Your task to perform on an android device: Search for Mexican restaurants on Maps Image 0: 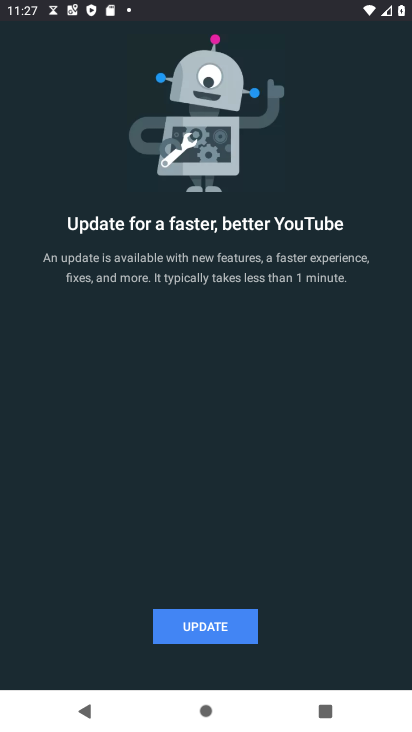
Step 0: press home button
Your task to perform on an android device: Search for Mexican restaurants on Maps Image 1: 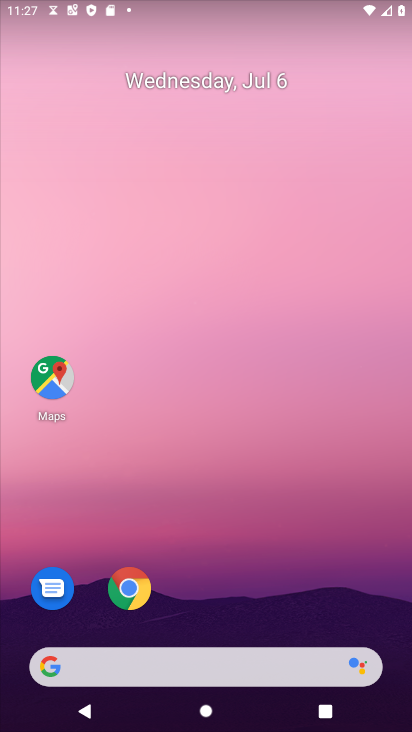
Step 1: drag from (297, 599) to (260, 99)
Your task to perform on an android device: Search for Mexican restaurants on Maps Image 2: 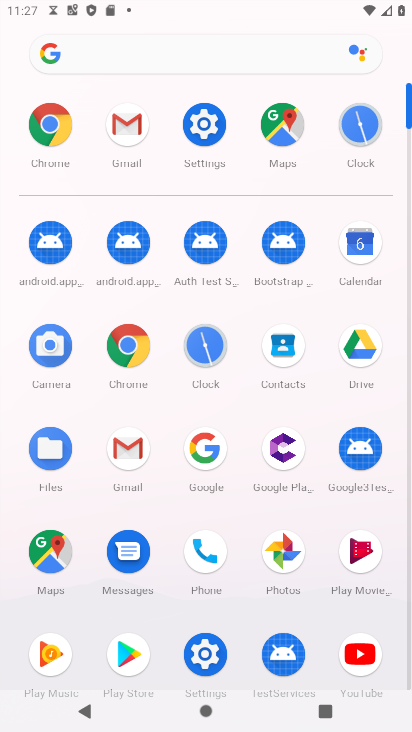
Step 2: click (48, 541)
Your task to perform on an android device: Search for Mexican restaurants on Maps Image 3: 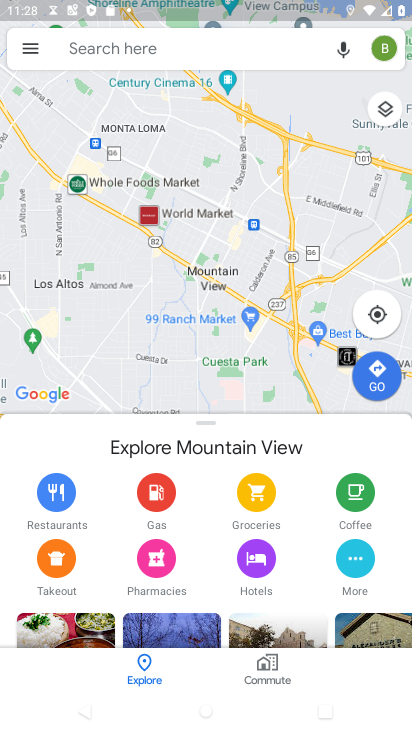
Step 3: click (150, 28)
Your task to perform on an android device: Search for Mexican restaurants on Maps Image 4: 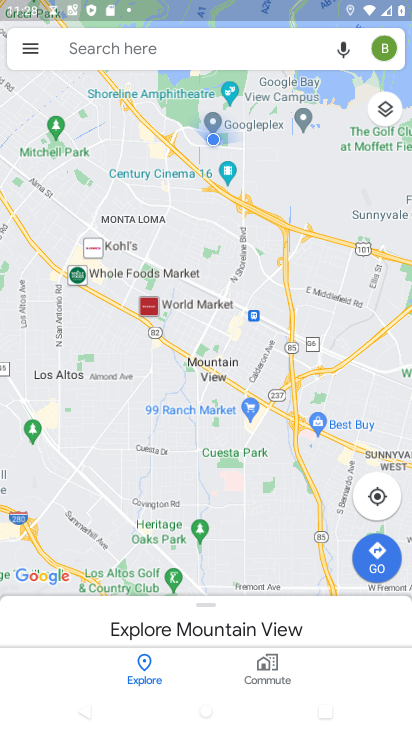
Step 4: type " Mexican restaurants "
Your task to perform on an android device: Search for Mexican restaurants on Maps Image 5: 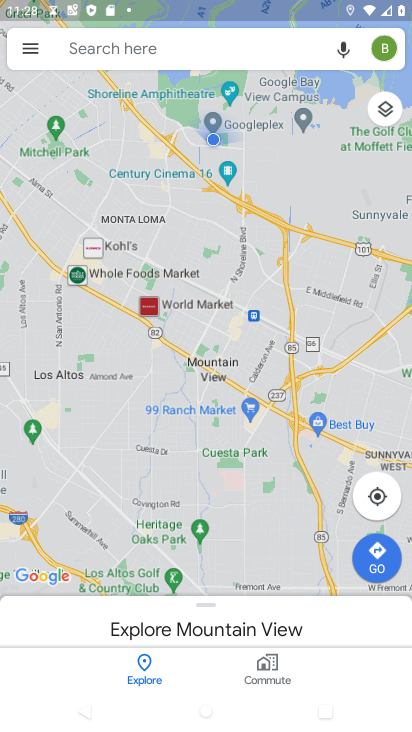
Step 5: click (187, 44)
Your task to perform on an android device: Search for Mexican restaurants on Maps Image 6: 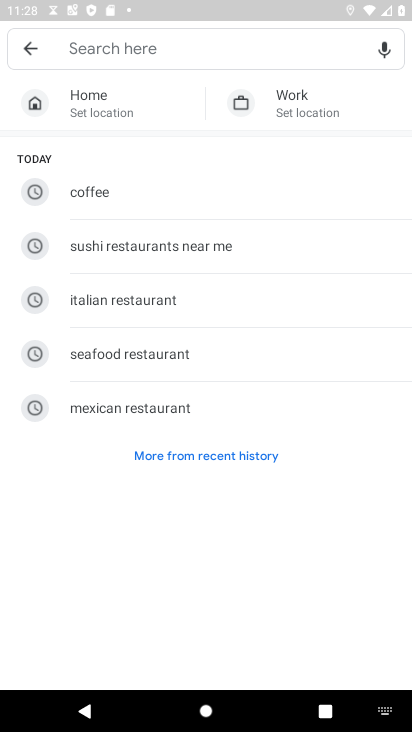
Step 6: click (159, 408)
Your task to perform on an android device: Search for Mexican restaurants on Maps Image 7: 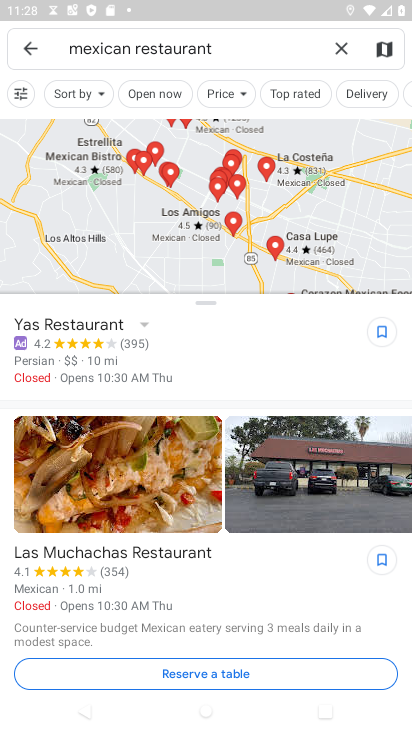
Step 7: task complete